Your task to perform on an android device: change the clock style Image 0: 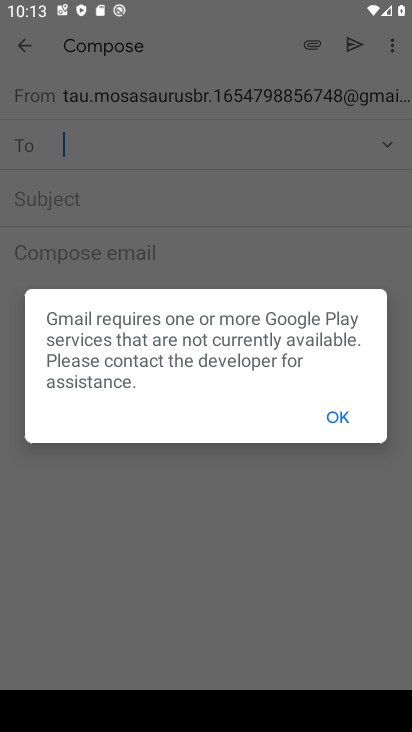
Step 0: press home button
Your task to perform on an android device: change the clock style Image 1: 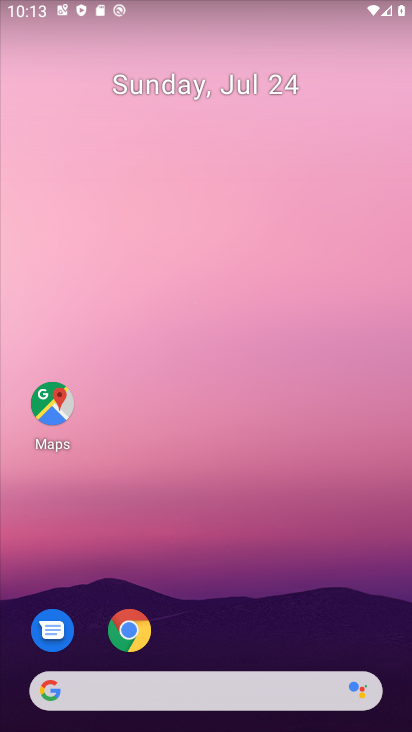
Step 1: drag from (231, 621) to (204, 221)
Your task to perform on an android device: change the clock style Image 2: 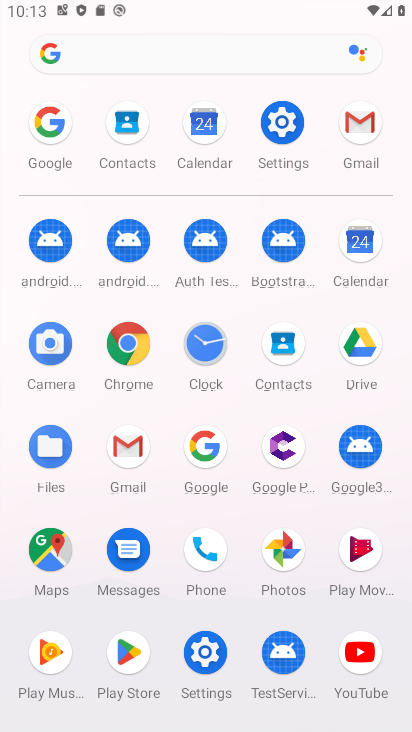
Step 2: click (211, 360)
Your task to perform on an android device: change the clock style Image 3: 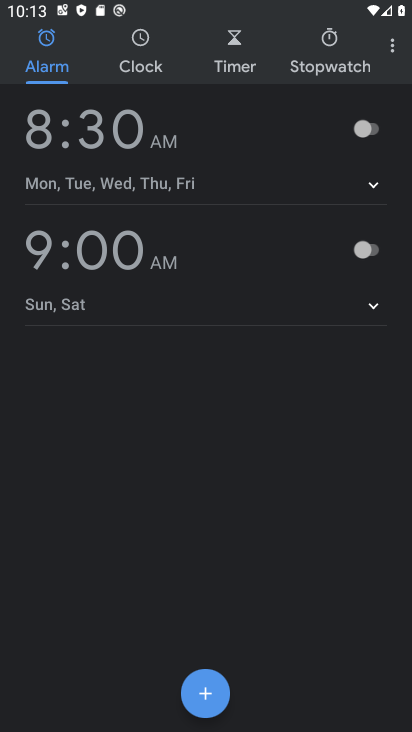
Step 3: click (385, 41)
Your task to perform on an android device: change the clock style Image 4: 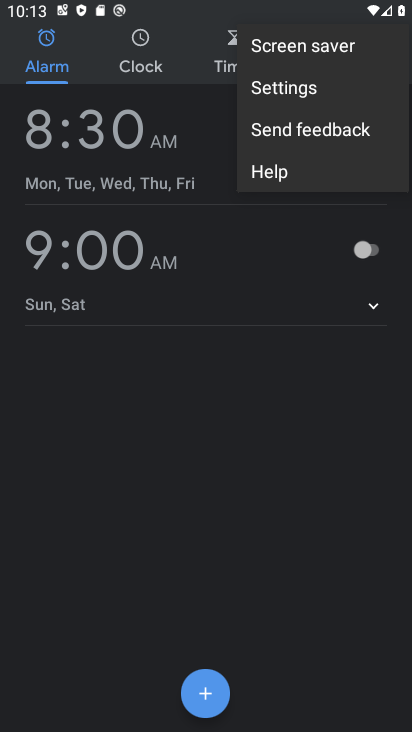
Step 4: click (288, 96)
Your task to perform on an android device: change the clock style Image 5: 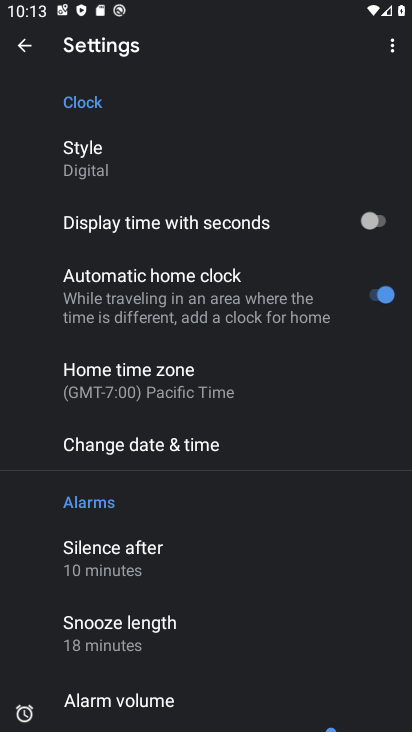
Step 5: click (89, 172)
Your task to perform on an android device: change the clock style Image 6: 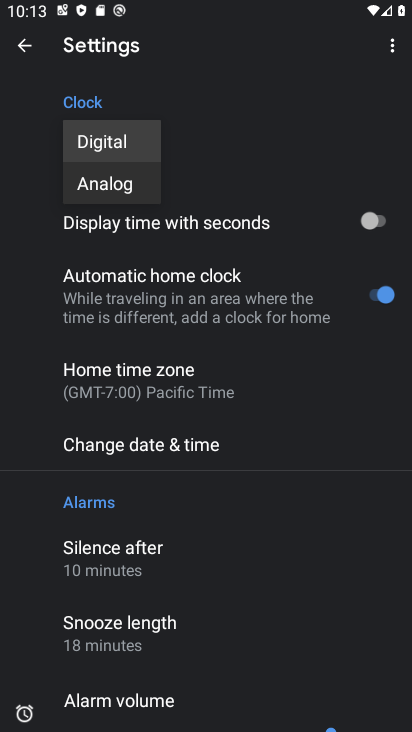
Step 6: click (105, 193)
Your task to perform on an android device: change the clock style Image 7: 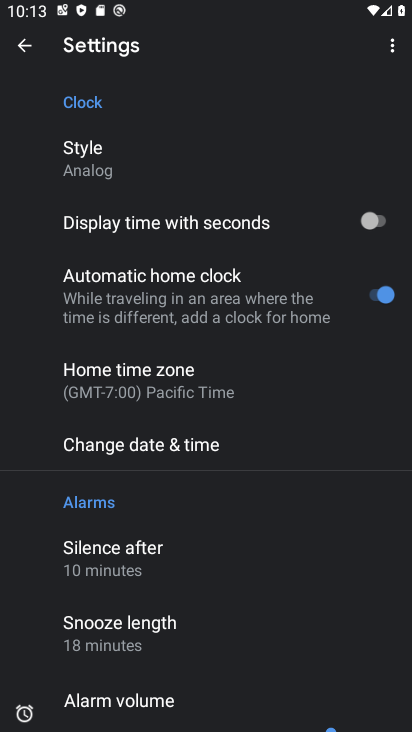
Step 7: task complete